Your task to perform on an android device: toggle wifi Image 0: 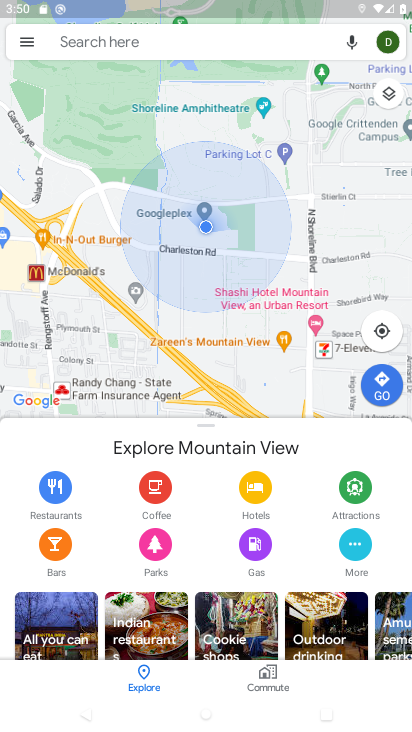
Step 0: press home button
Your task to perform on an android device: toggle wifi Image 1: 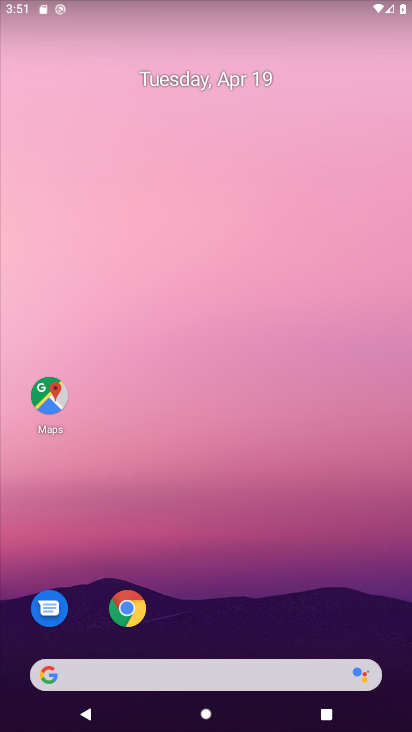
Step 1: drag from (277, 474) to (227, 0)
Your task to perform on an android device: toggle wifi Image 2: 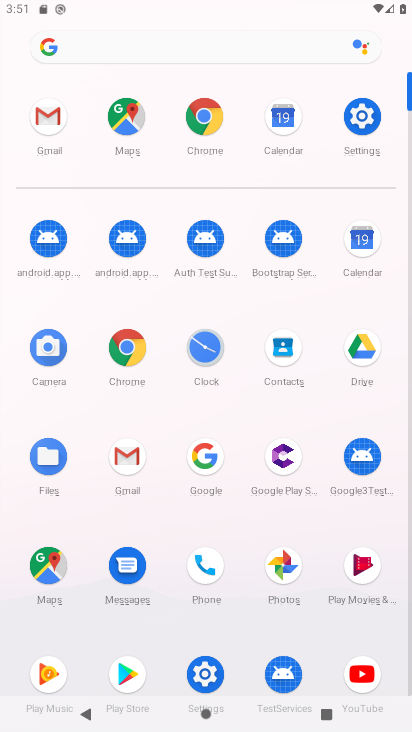
Step 2: click (360, 118)
Your task to perform on an android device: toggle wifi Image 3: 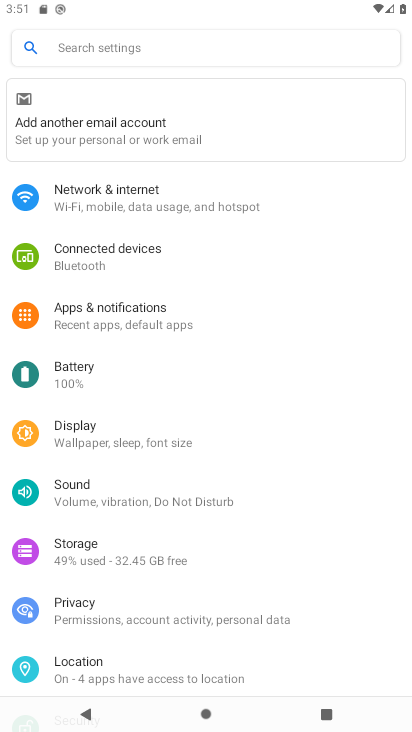
Step 3: click (149, 196)
Your task to perform on an android device: toggle wifi Image 4: 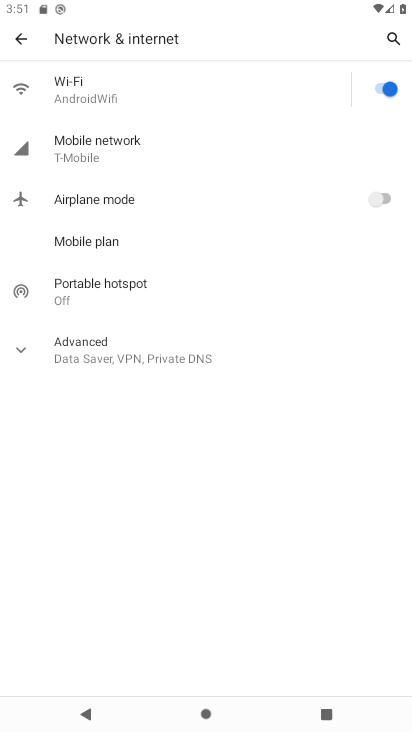
Step 4: click (177, 98)
Your task to perform on an android device: toggle wifi Image 5: 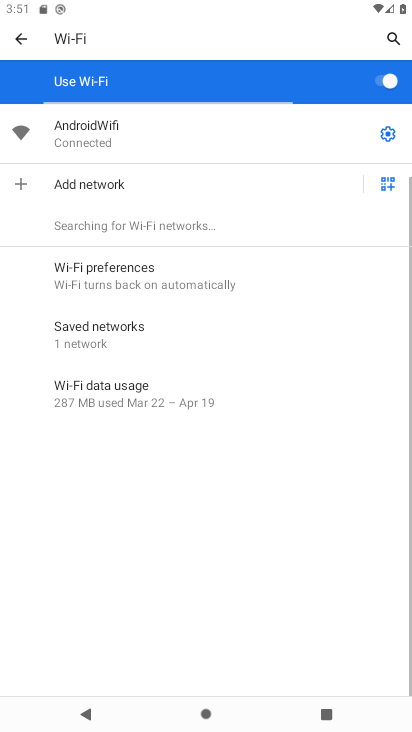
Step 5: click (373, 76)
Your task to perform on an android device: toggle wifi Image 6: 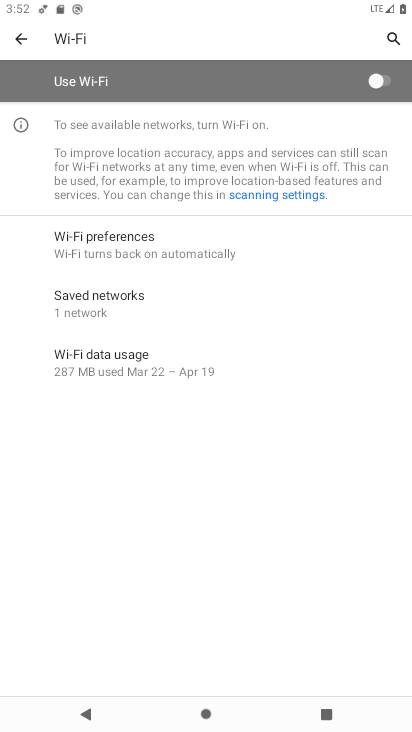
Step 6: task complete